Your task to perform on an android device: Go to wifi settings Image 0: 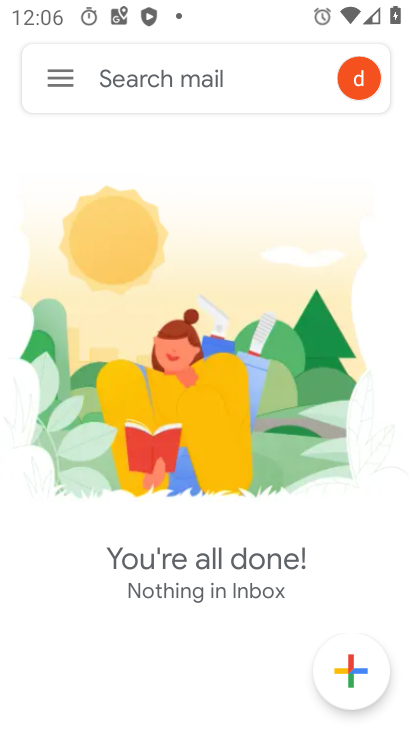
Step 0: press home button
Your task to perform on an android device: Go to wifi settings Image 1: 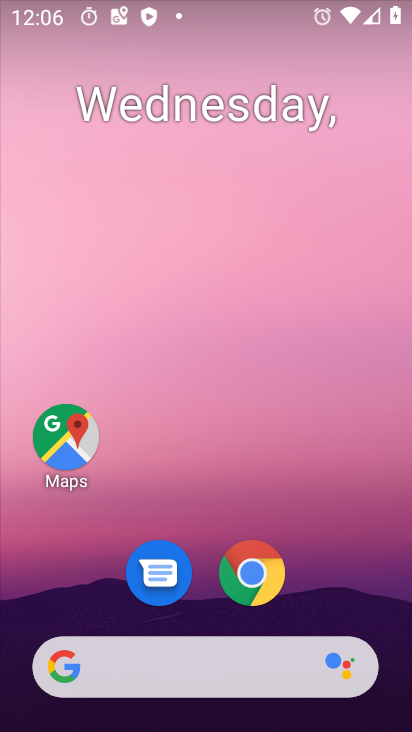
Step 1: drag from (235, 721) to (299, 282)
Your task to perform on an android device: Go to wifi settings Image 2: 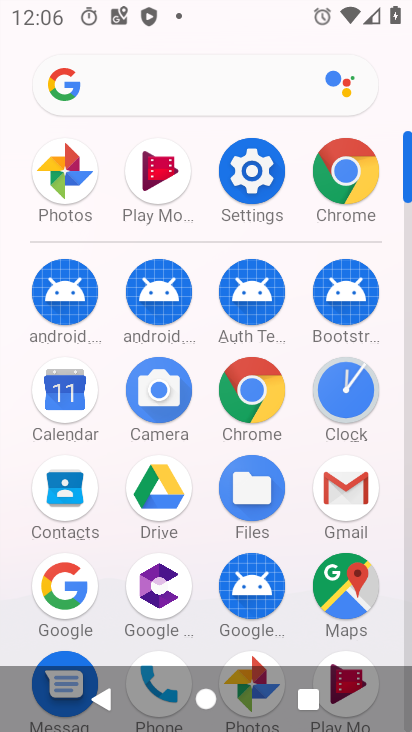
Step 2: click (266, 161)
Your task to perform on an android device: Go to wifi settings Image 3: 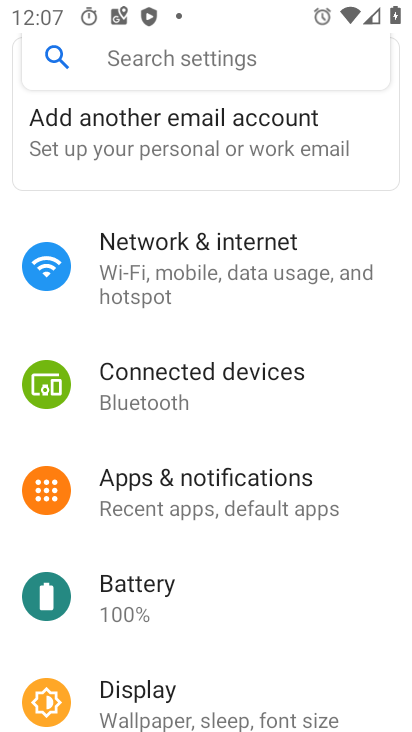
Step 3: click (189, 285)
Your task to perform on an android device: Go to wifi settings Image 4: 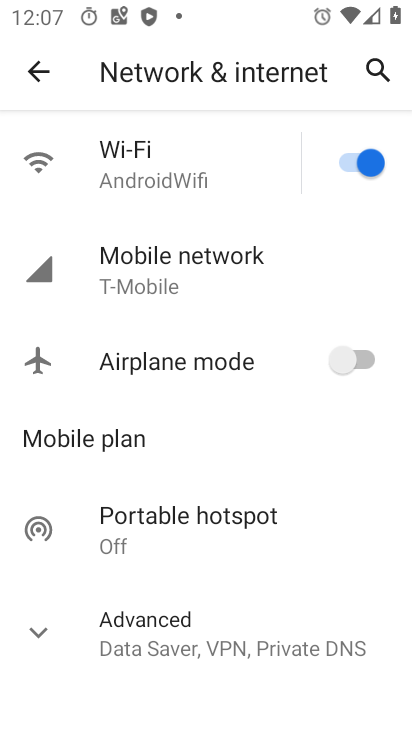
Step 4: click (180, 182)
Your task to perform on an android device: Go to wifi settings Image 5: 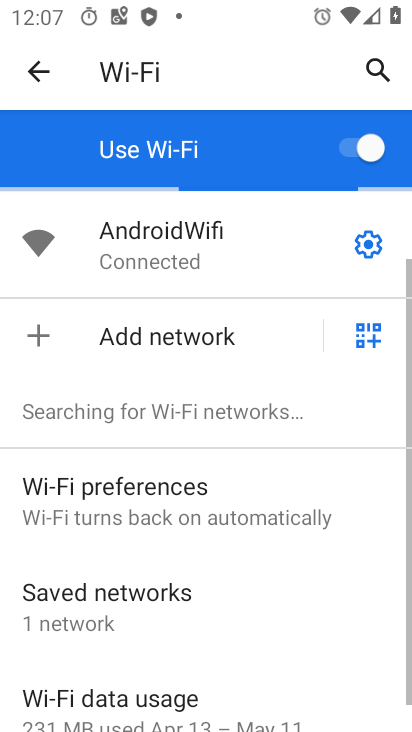
Step 5: task complete